Your task to perform on an android device: Go to internet settings Image 0: 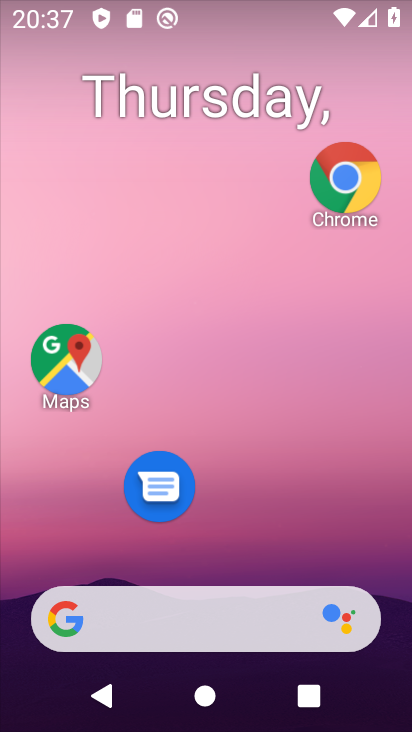
Step 0: drag from (185, 584) to (60, 17)
Your task to perform on an android device: Go to internet settings Image 1: 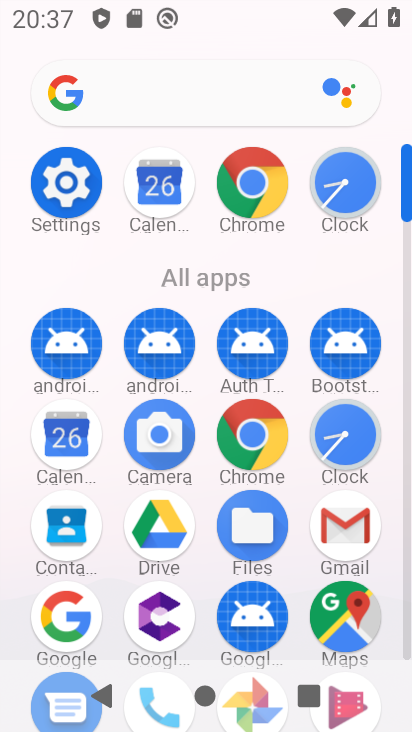
Step 1: click (56, 169)
Your task to perform on an android device: Go to internet settings Image 2: 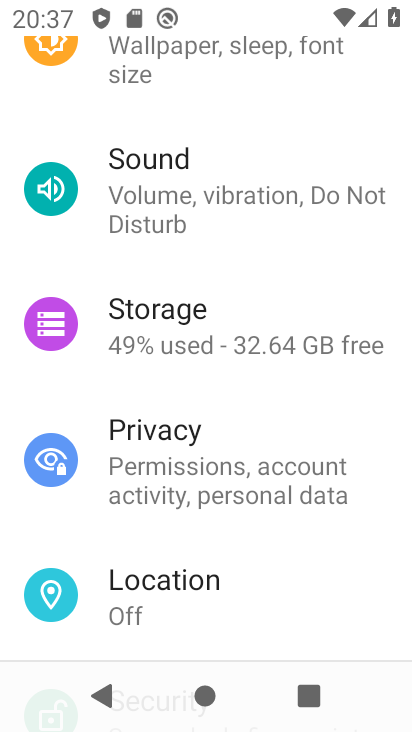
Step 2: drag from (160, 163) to (137, 622)
Your task to perform on an android device: Go to internet settings Image 3: 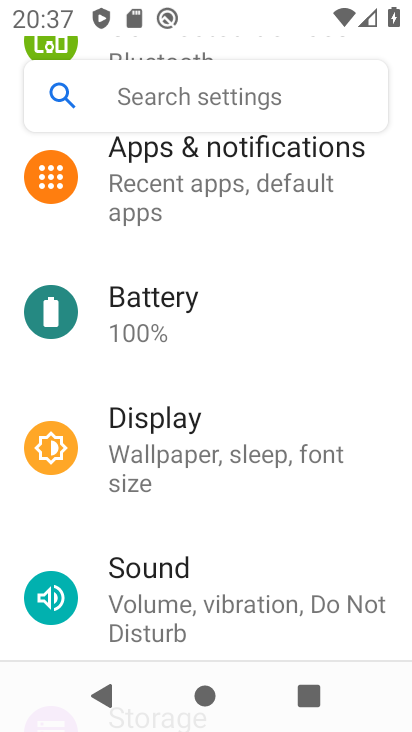
Step 3: drag from (218, 155) to (223, 606)
Your task to perform on an android device: Go to internet settings Image 4: 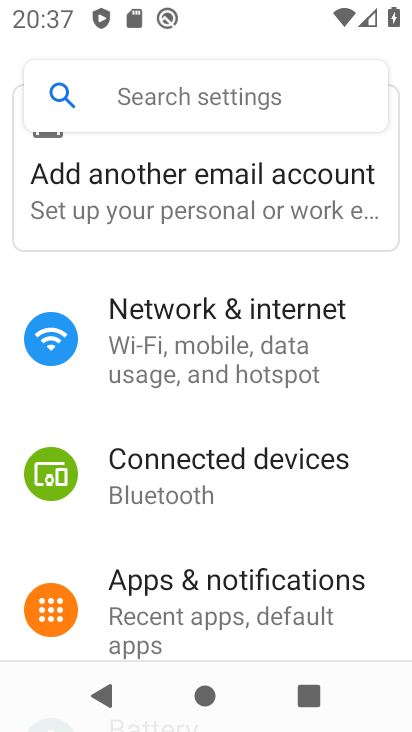
Step 4: click (166, 309)
Your task to perform on an android device: Go to internet settings Image 5: 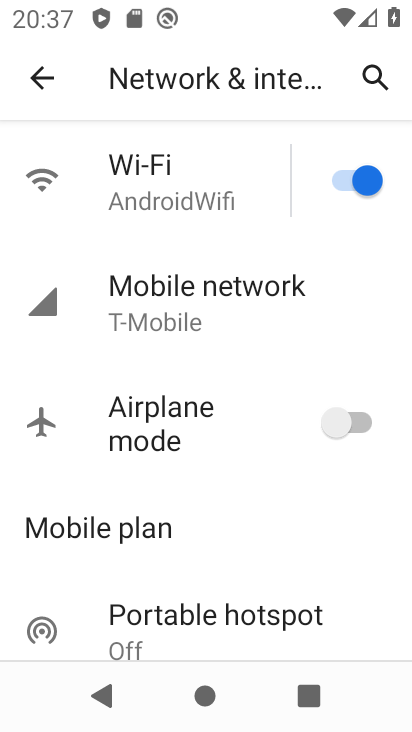
Step 5: task complete